Your task to perform on an android device: change notifications settings Image 0: 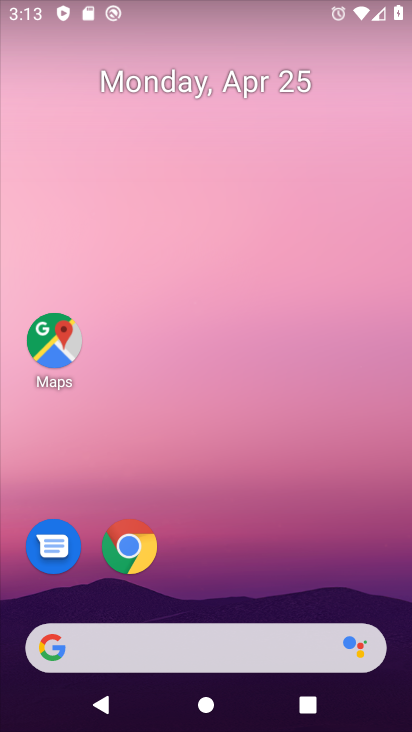
Step 0: drag from (253, 576) to (254, 25)
Your task to perform on an android device: change notifications settings Image 1: 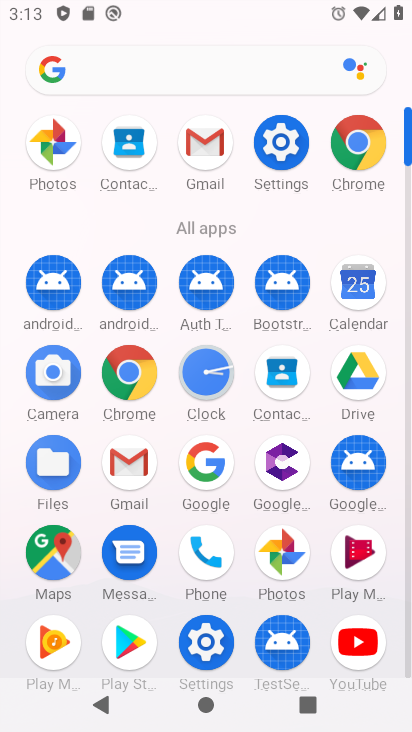
Step 1: click (206, 642)
Your task to perform on an android device: change notifications settings Image 2: 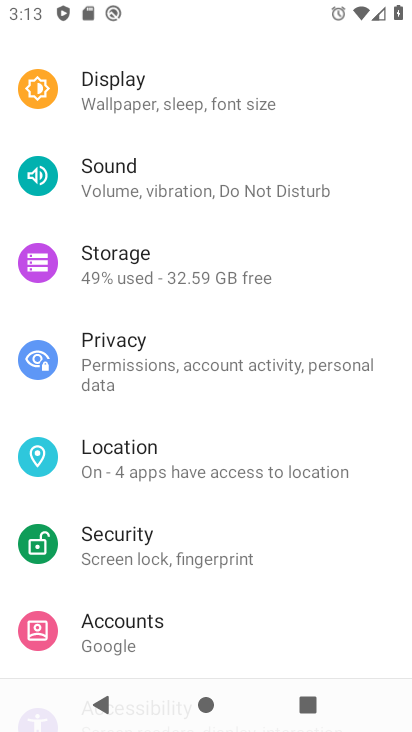
Step 2: drag from (224, 421) to (255, 570)
Your task to perform on an android device: change notifications settings Image 3: 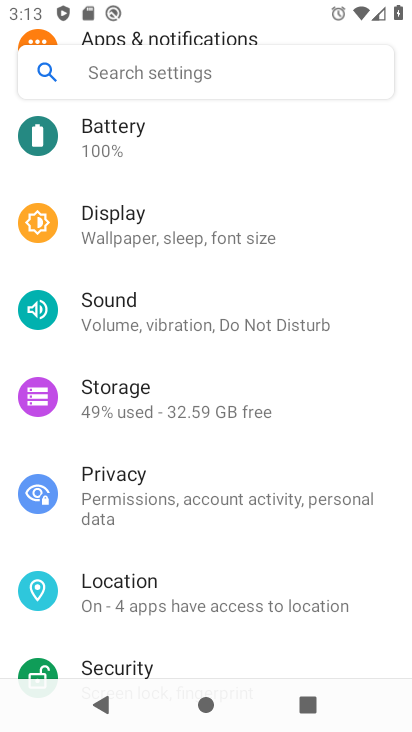
Step 3: drag from (264, 330) to (301, 467)
Your task to perform on an android device: change notifications settings Image 4: 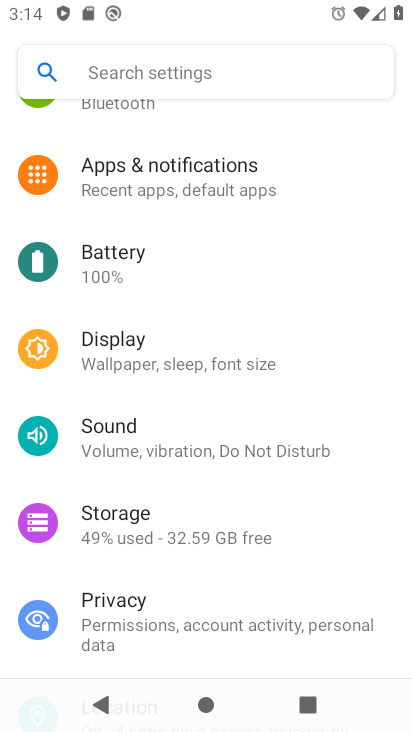
Step 4: drag from (275, 355) to (284, 537)
Your task to perform on an android device: change notifications settings Image 5: 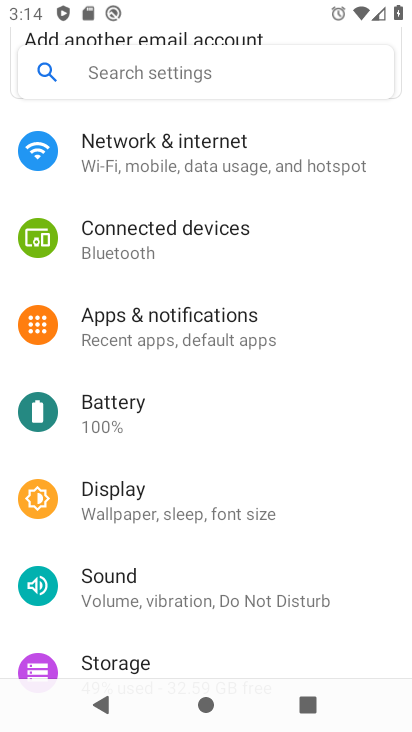
Step 5: click (218, 319)
Your task to perform on an android device: change notifications settings Image 6: 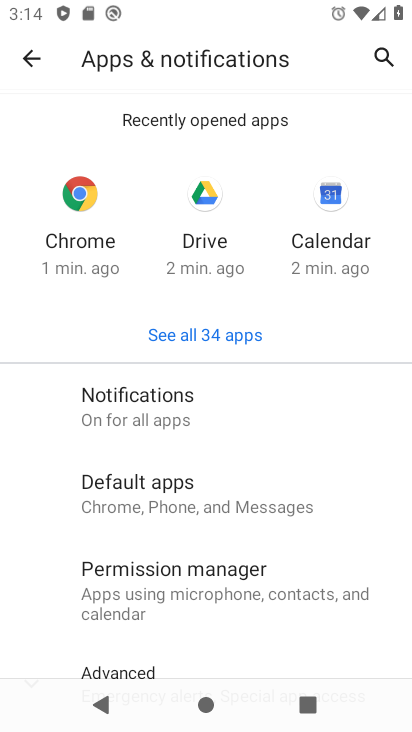
Step 6: click (219, 413)
Your task to perform on an android device: change notifications settings Image 7: 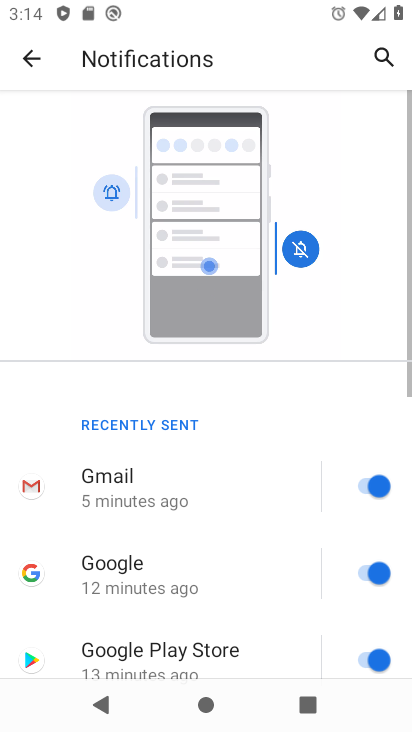
Step 7: drag from (242, 559) to (245, 224)
Your task to perform on an android device: change notifications settings Image 8: 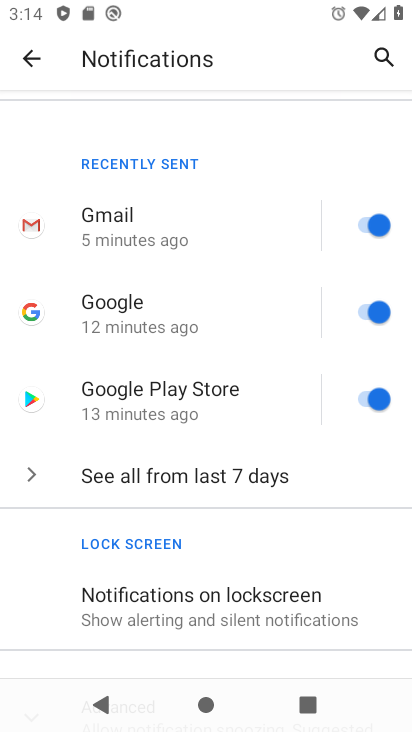
Step 8: click (189, 488)
Your task to perform on an android device: change notifications settings Image 9: 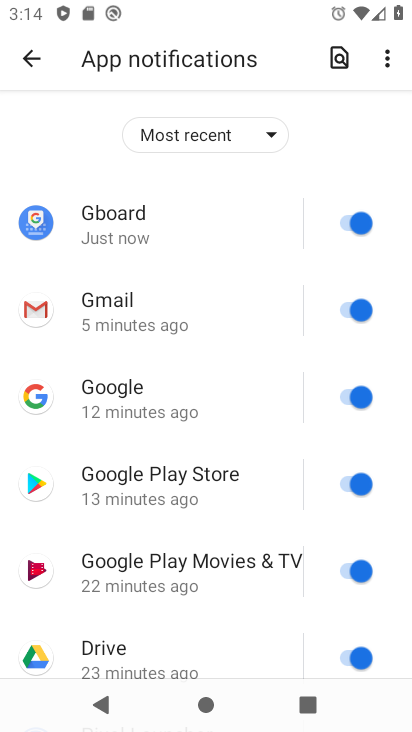
Step 9: click (310, 224)
Your task to perform on an android device: change notifications settings Image 10: 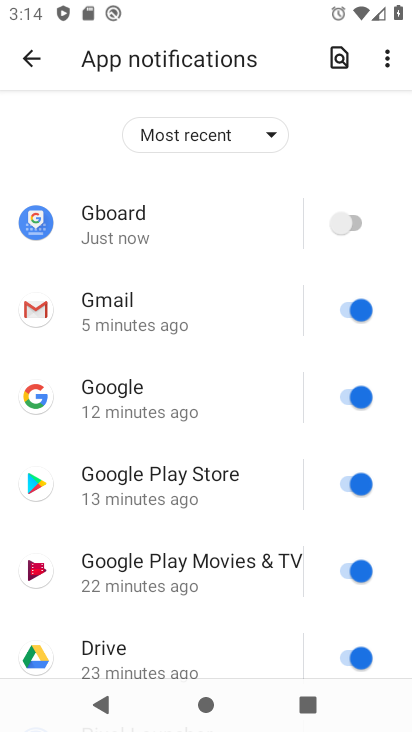
Step 10: click (339, 303)
Your task to perform on an android device: change notifications settings Image 11: 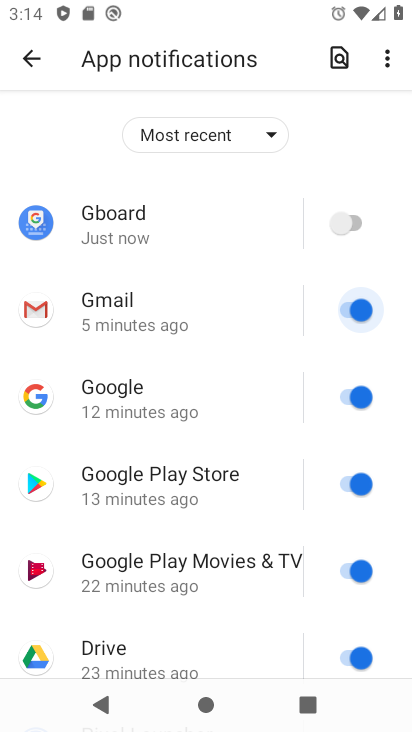
Step 11: click (354, 386)
Your task to perform on an android device: change notifications settings Image 12: 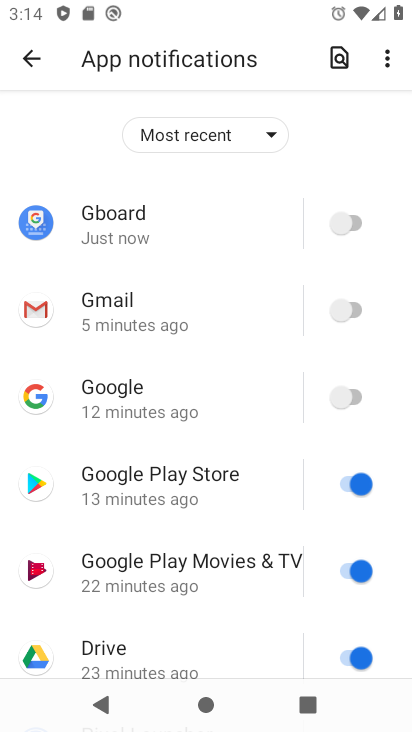
Step 12: click (364, 488)
Your task to perform on an android device: change notifications settings Image 13: 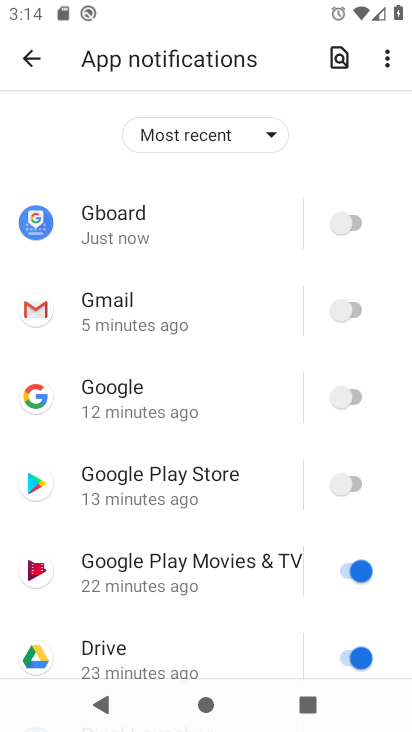
Step 13: click (356, 563)
Your task to perform on an android device: change notifications settings Image 14: 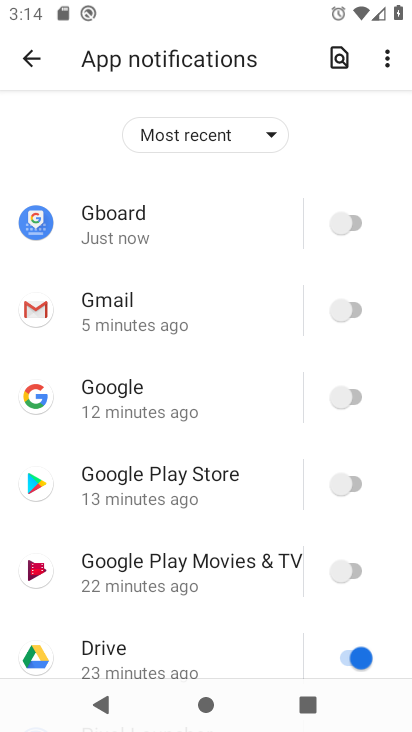
Step 14: drag from (294, 609) to (304, 224)
Your task to perform on an android device: change notifications settings Image 15: 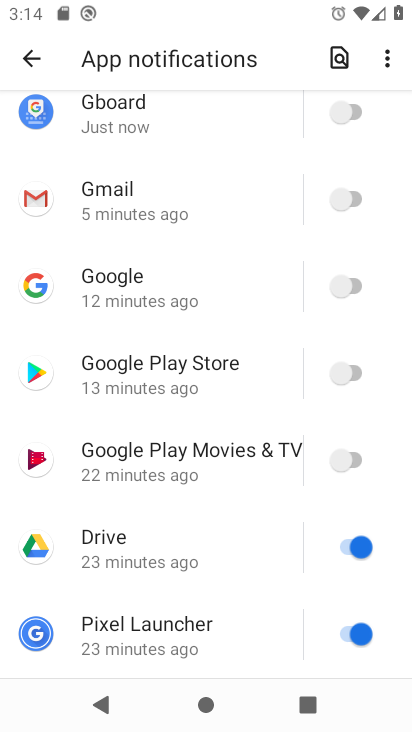
Step 15: click (349, 555)
Your task to perform on an android device: change notifications settings Image 16: 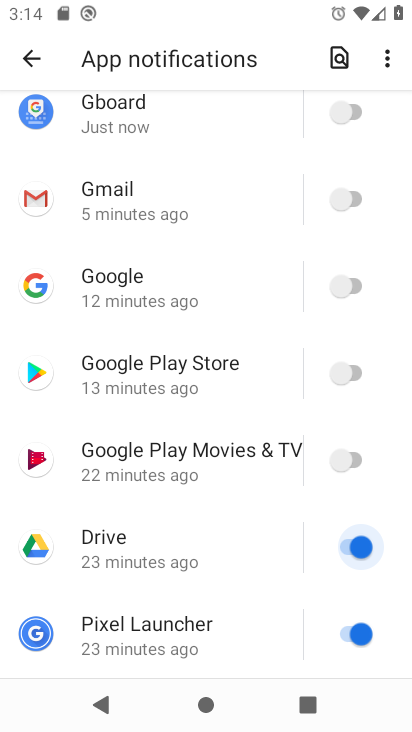
Step 16: click (344, 640)
Your task to perform on an android device: change notifications settings Image 17: 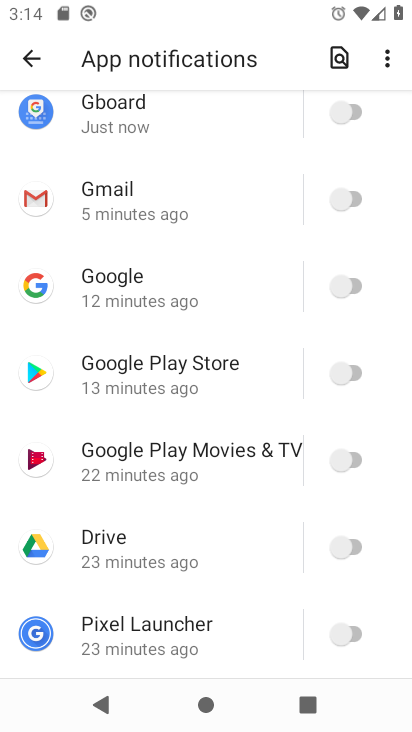
Step 17: click (33, 54)
Your task to perform on an android device: change notifications settings Image 18: 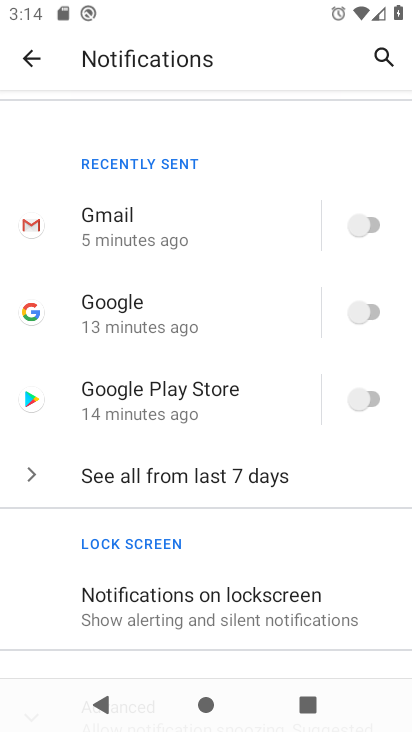
Step 18: drag from (168, 508) to (202, 52)
Your task to perform on an android device: change notifications settings Image 19: 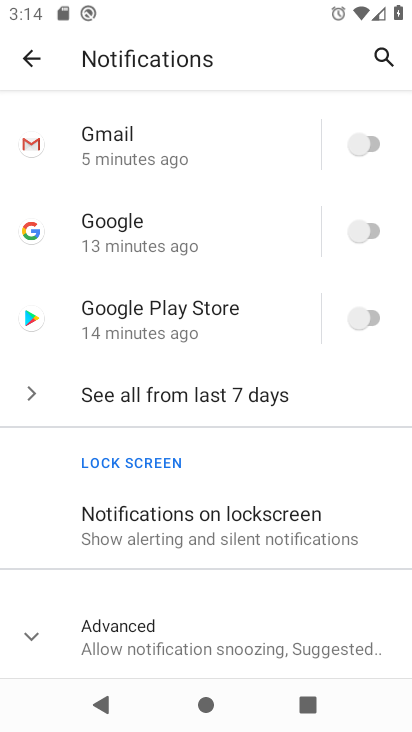
Step 19: click (175, 512)
Your task to perform on an android device: change notifications settings Image 20: 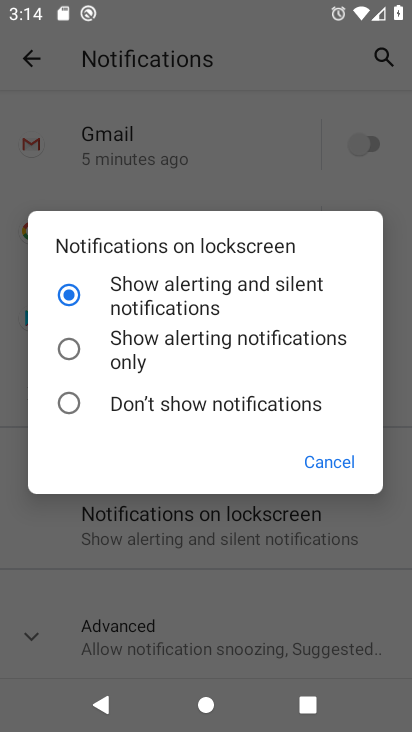
Step 20: click (214, 355)
Your task to perform on an android device: change notifications settings Image 21: 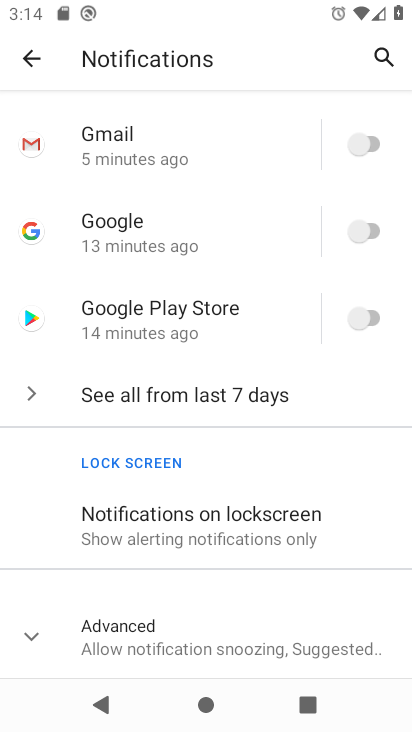
Step 21: click (161, 627)
Your task to perform on an android device: change notifications settings Image 22: 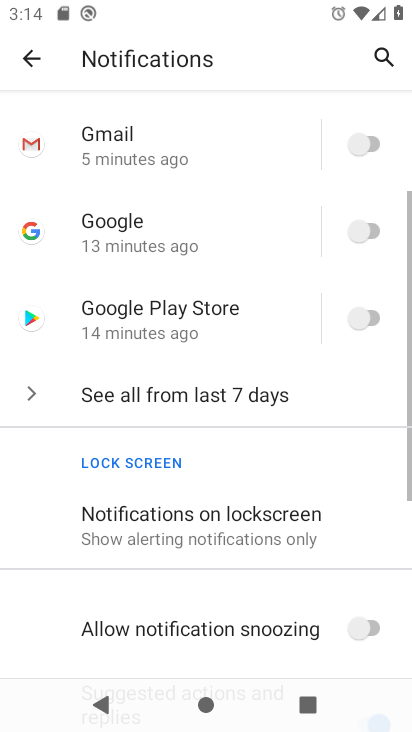
Step 22: drag from (162, 619) to (184, 192)
Your task to perform on an android device: change notifications settings Image 23: 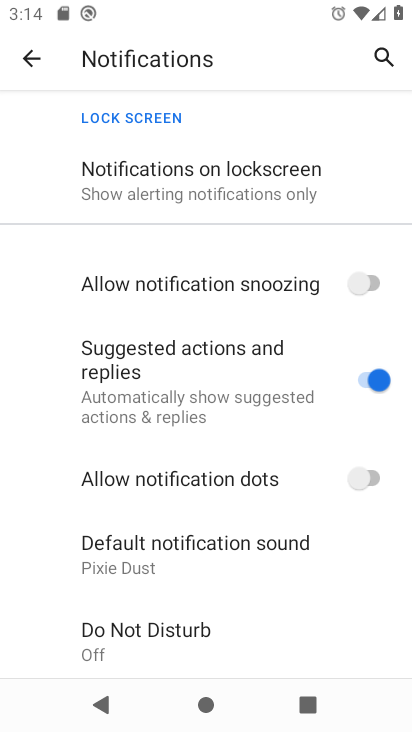
Step 23: click (363, 299)
Your task to perform on an android device: change notifications settings Image 24: 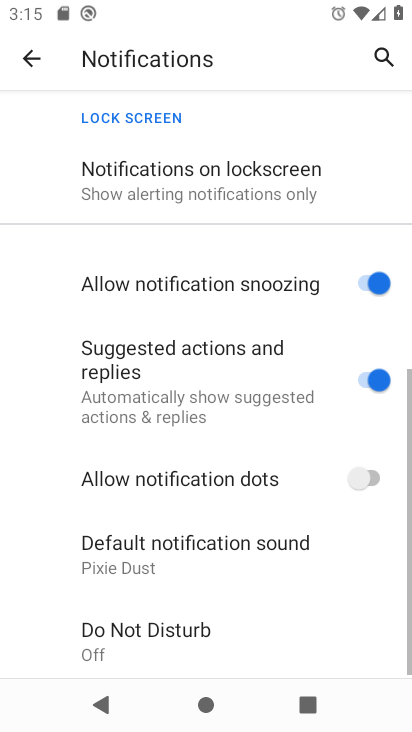
Step 24: click (369, 387)
Your task to perform on an android device: change notifications settings Image 25: 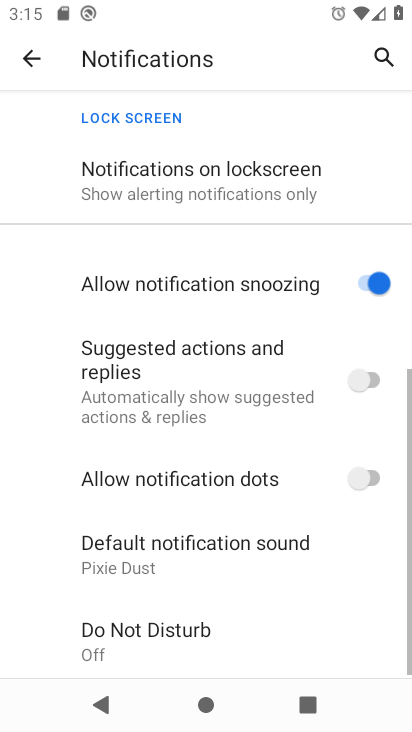
Step 25: click (357, 470)
Your task to perform on an android device: change notifications settings Image 26: 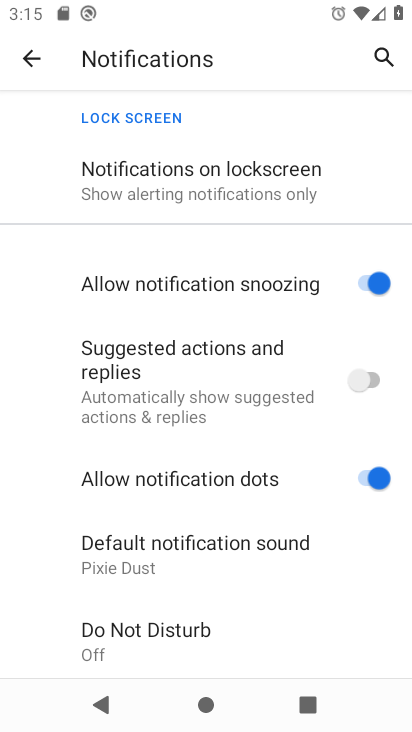
Step 26: task complete